Your task to perform on an android device: turn on bluetooth scan Image 0: 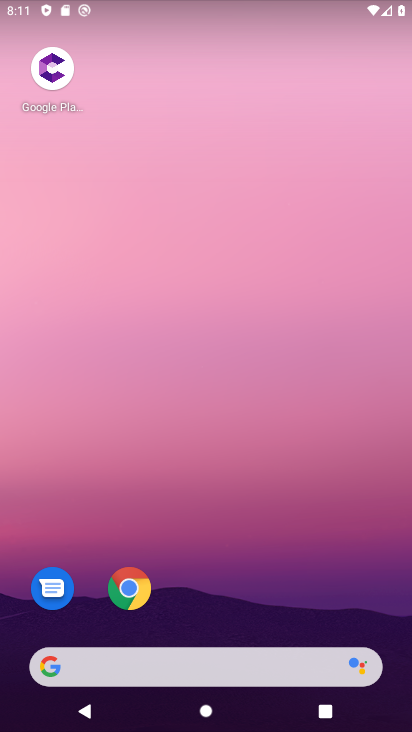
Step 0: drag from (230, 637) to (185, 35)
Your task to perform on an android device: turn on bluetooth scan Image 1: 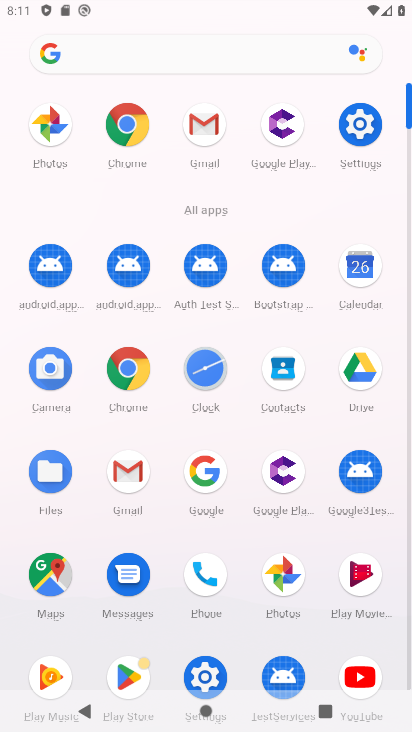
Step 1: click (353, 122)
Your task to perform on an android device: turn on bluetooth scan Image 2: 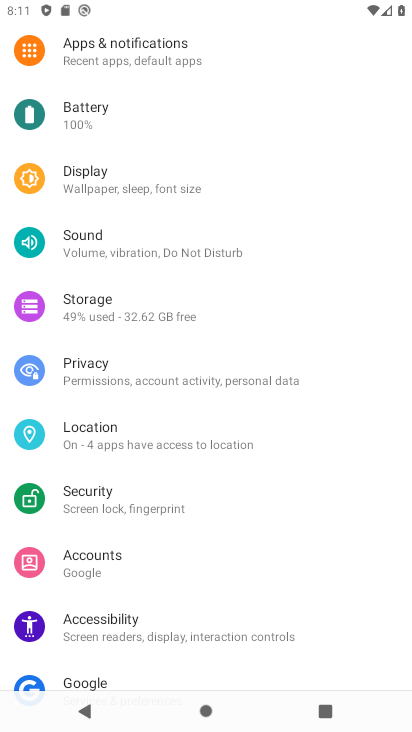
Step 2: click (65, 440)
Your task to perform on an android device: turn on bluetooth scan Image 3: 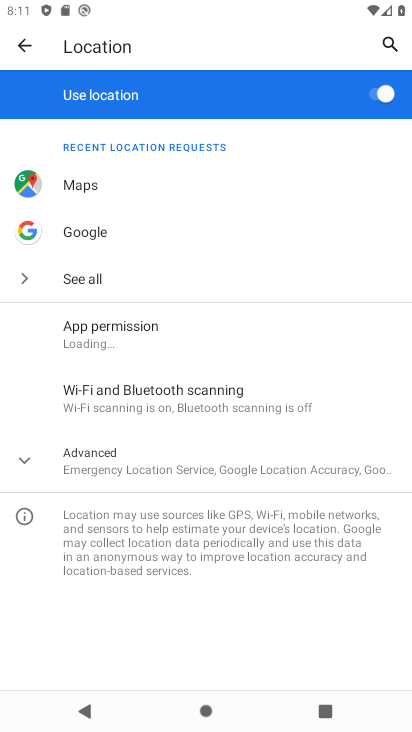
Step 3: click (109, 410)
Your task to perform on an android device: turn on bluetooth scan Image 4: 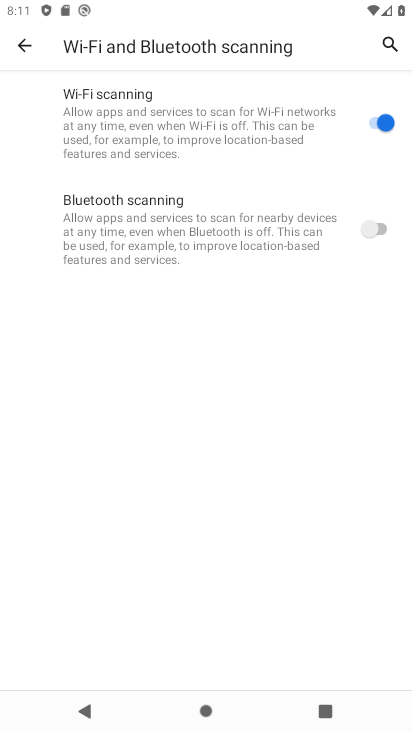
Step 4: click (370, 230)
Your task to perform on an android device: turn on bluetooth scan Image 5: 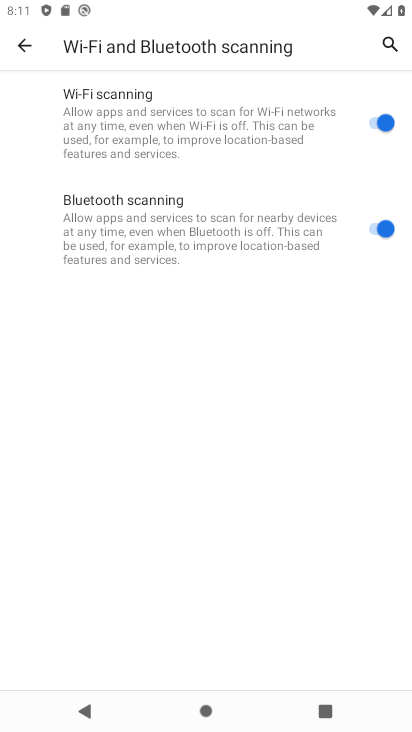
Step 5: task complete